Your task to perform on an android device: Open sound settings Image 0: 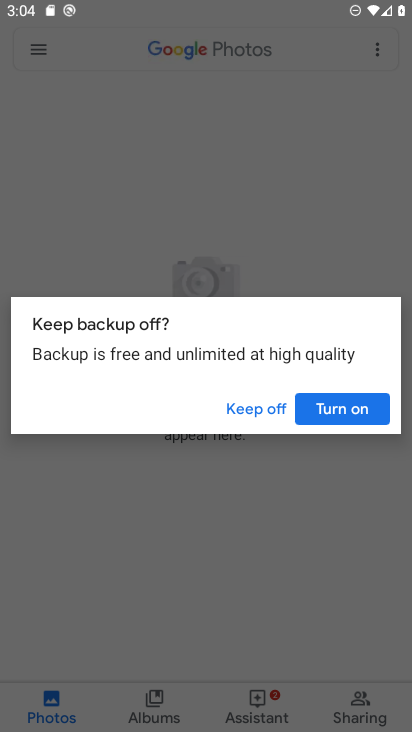
Step 0: press back button
Your task to perform on an android device: Open sound settings Image 1: 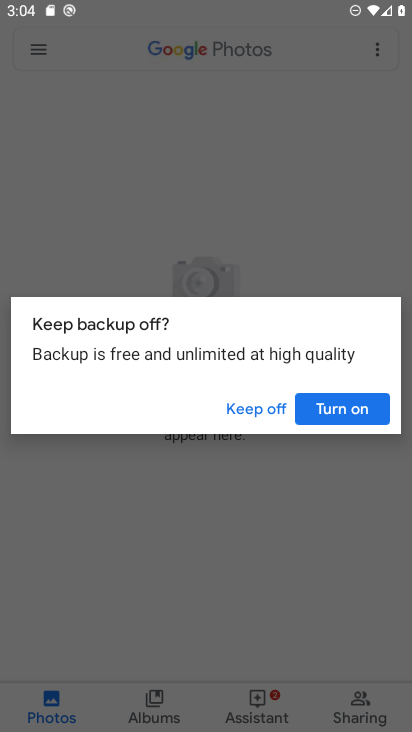
Step 1: press home button
Your task to perform on an android device: Open sound settings Image 2: 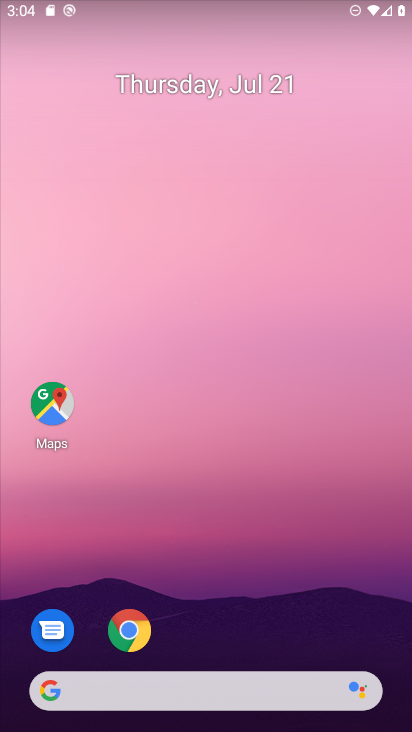
Step 2: drag from (184, 651) to (277, 14)
Your task to perform on an android device: Open sound settings Image 3: 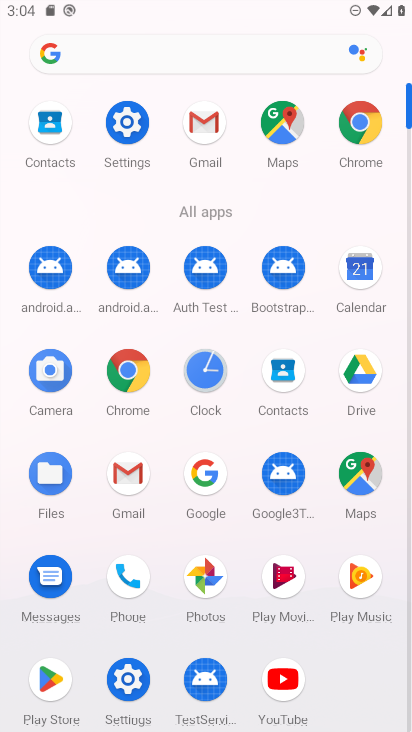
Step 3: click (129, 129)
Your task to perform on an android device: Open sound settings Image 4: 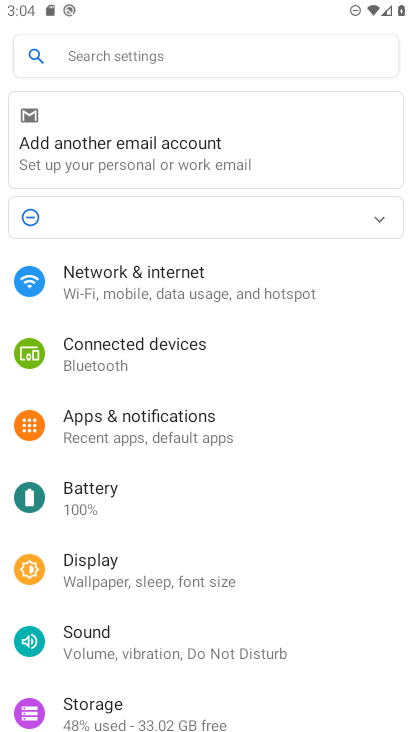
Step 4: click (103, 643)
Your task to perform on an android device: Open sound settings Image 5: 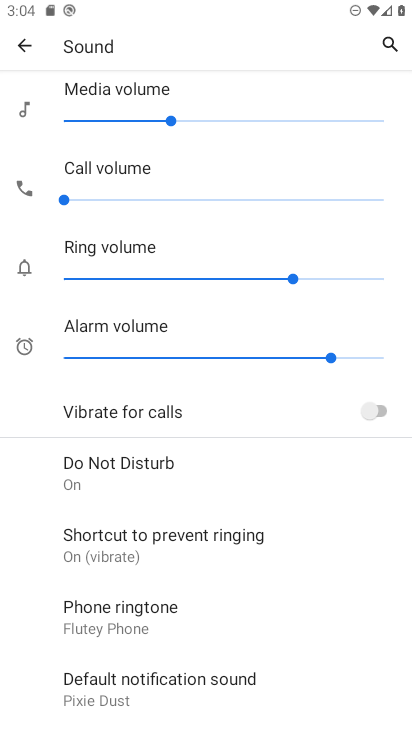
Step 5: task complete